Your task to perform on an android device: change the clock style Image 0: 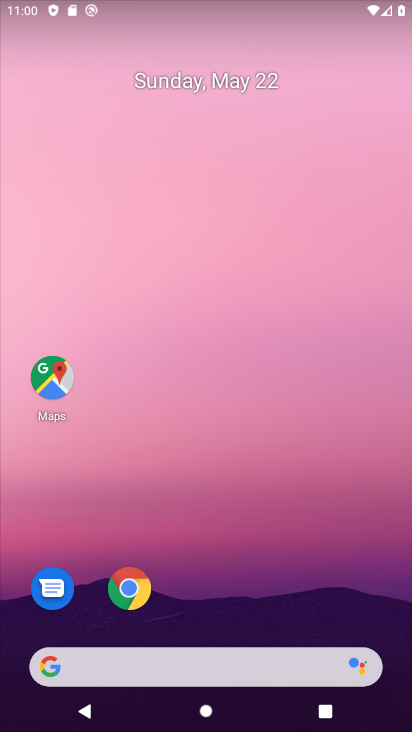
Step 0: drag from (219, 639) to (141, 1)
Your task to perform on an android device: change the clock style Image 1: 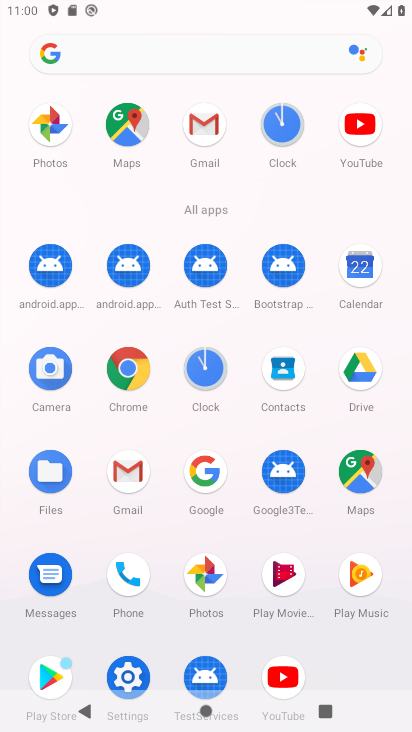
Step 1: click (193, 360)
Your task to perform on an android device: change the clock style Image 2: 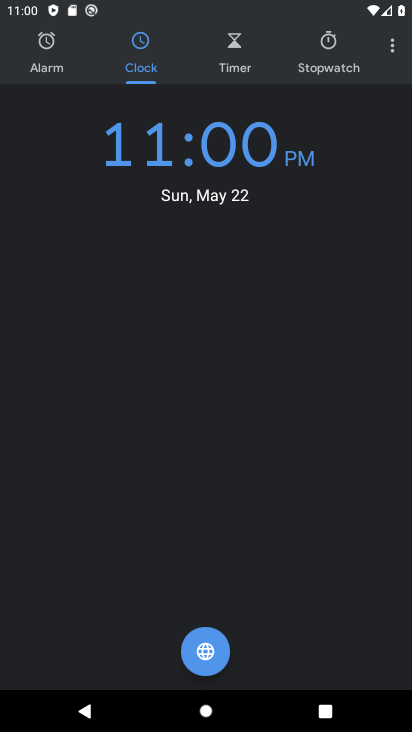
Step 2: click (398, 49)
Your task to perform on an android device: change the clock style Image 3: 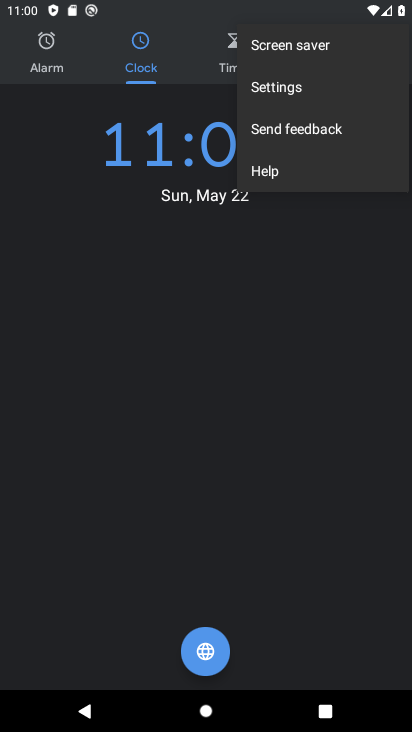
Step 3: click (274, 87)
Your task to perform on an android device: change the clock style Image 4: 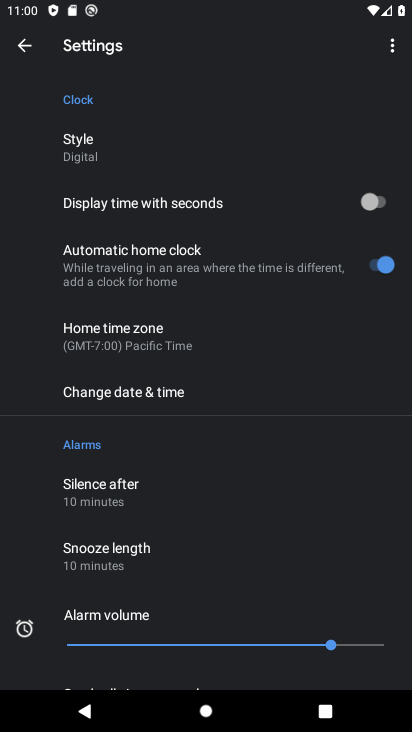
Step 4: click (110, 154)
Your task to perform on an android device: change the clock style Image 5: 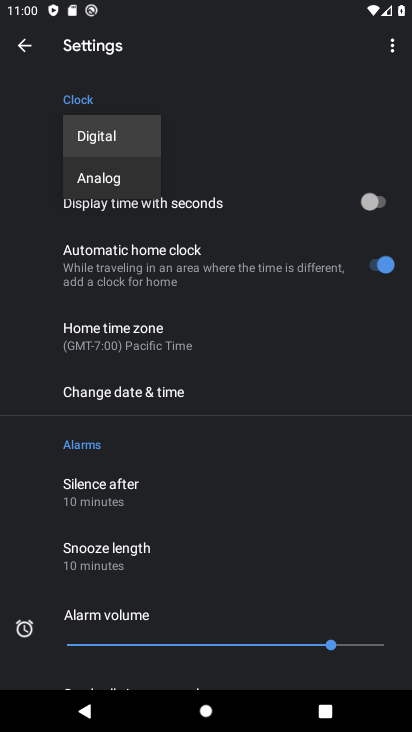
Step 5: click (108, 178)
Your task to perform on an android device: change the clock style Image 6: 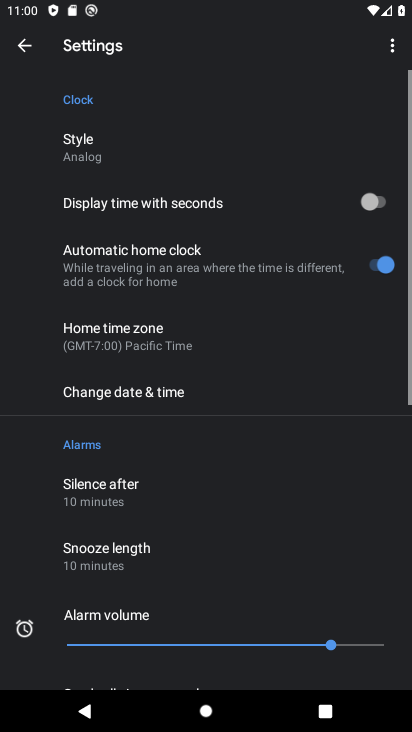
Step 6: task complete